Your task to perform on an android device: Open Youtube and go to "Your channel" Image 0: 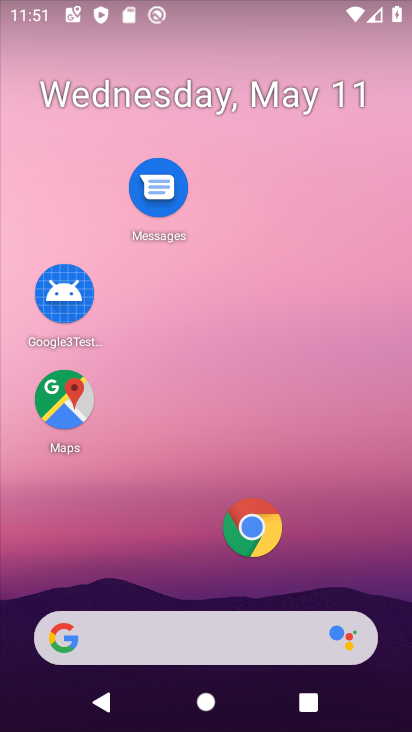
Step 0: drag from (240, 599) to (128, 158)
Your task to perform on an android device: Open Youtube and go to "Your channel" Image 1: 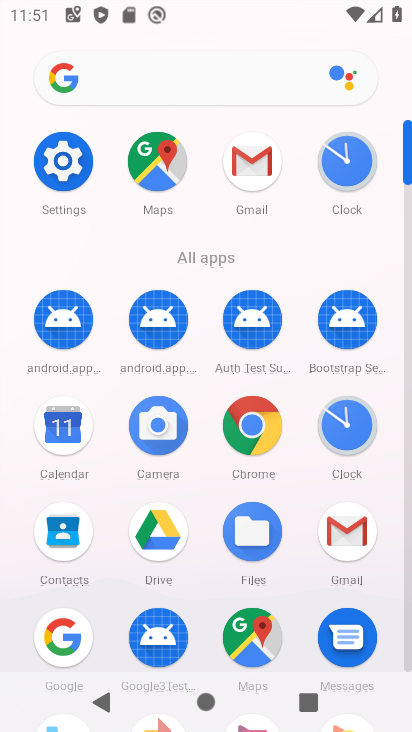
Step 1: drag from (203, 570) to (193, 181)
Your task to perform on an android device: Open Youtube and go to "Your channel" Image 2: 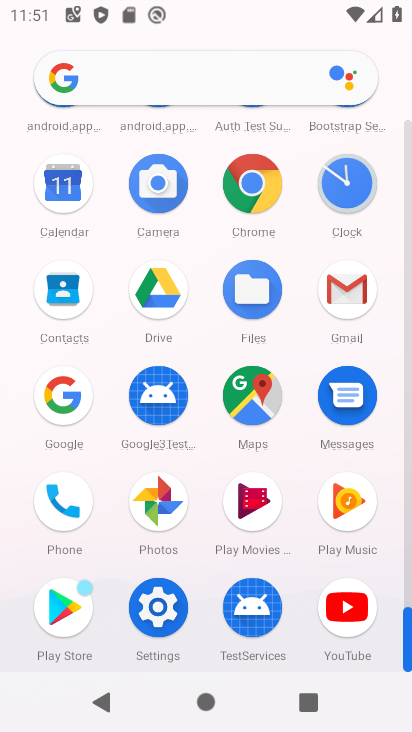
Step 2: click (349, 609)
Your task to perform on an android device: Open Youtube and go to "Your channel" Image 3: 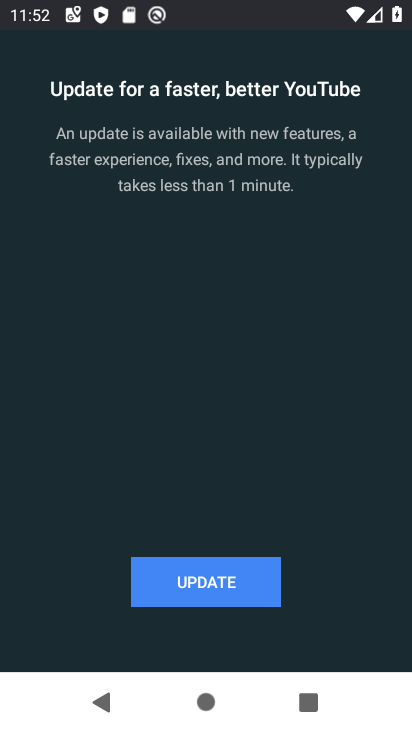
Step 3: click (253, 577)
Your task to perform on an android device: Open Youtube and go to "Your channel" Image 4: 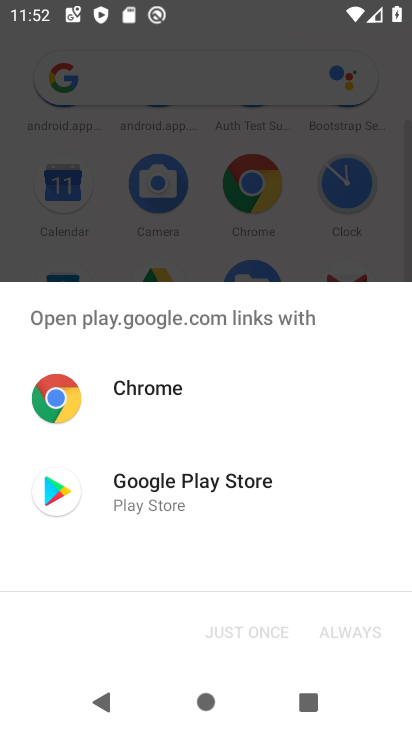
Step 4: click (153, 484)
Your task to perform on an android device: Open Youtube and go to "Your channel" Image 5: 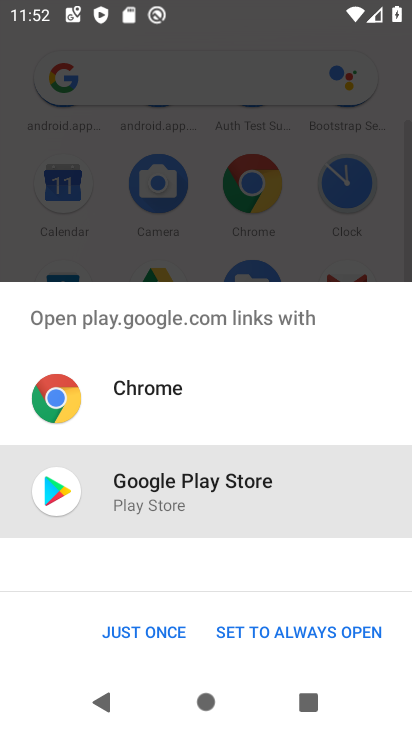
Step 5: click (169, 638)
Your task to perform on an android device: Open Youtube and go to "Your channel" Image 6: 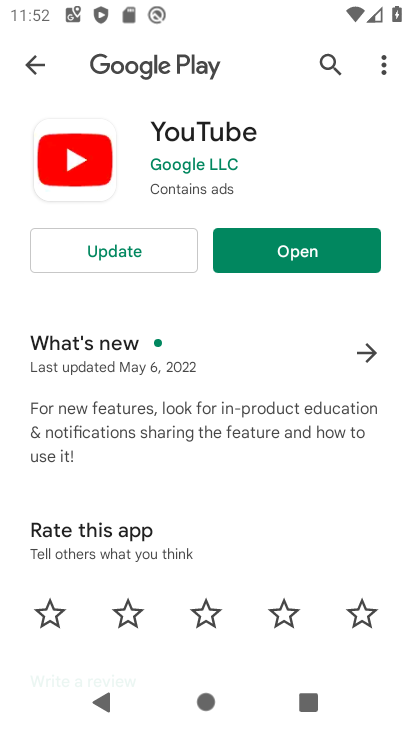
Step 6: click (133, 235)
Your task to perform on an android device: Open Youtube and go to "Your channel" Image 7: 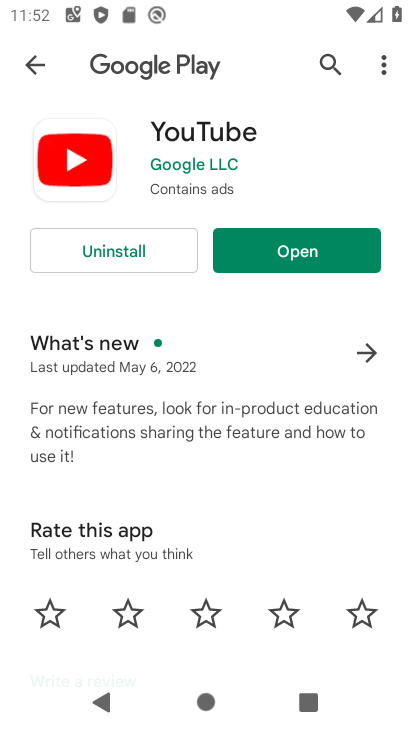
Step 7: click (327, 249)
Your task to perform on an android device: Open Youtube and go to "Your channel" Image 8: 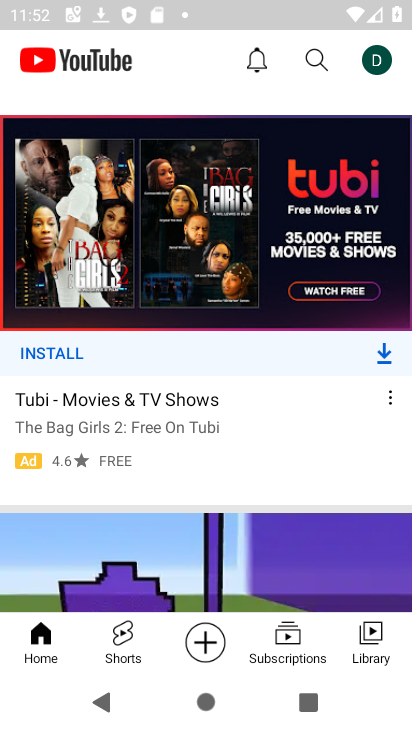
Step 8: click (378, 61)
Your task to perform on an android device: Open Youtube and go to "Your channel" Image 9: 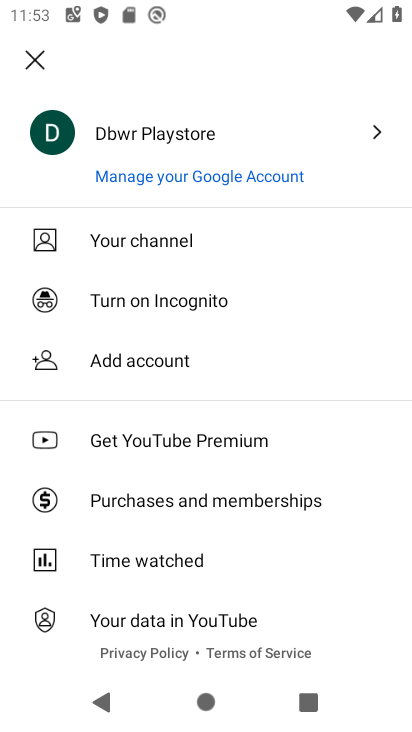
Step 9: click (133, 248)
Your task to perform on an android device: Open Youtube and go to "Your channel" Image 10: 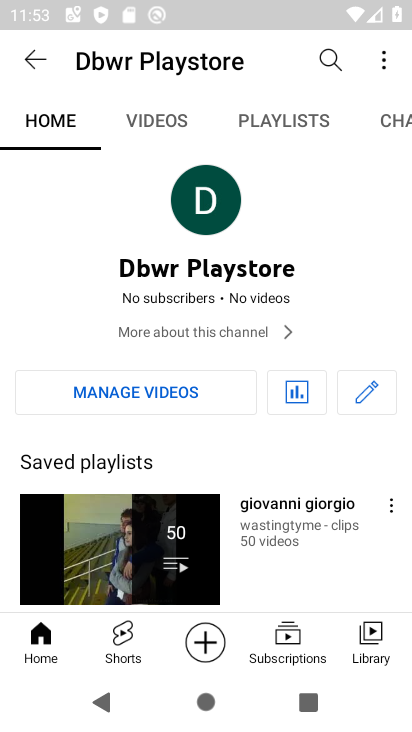
Step 10: task complete